Your task to perform on an android device: Open Chrome and go to the settings page Image 0: 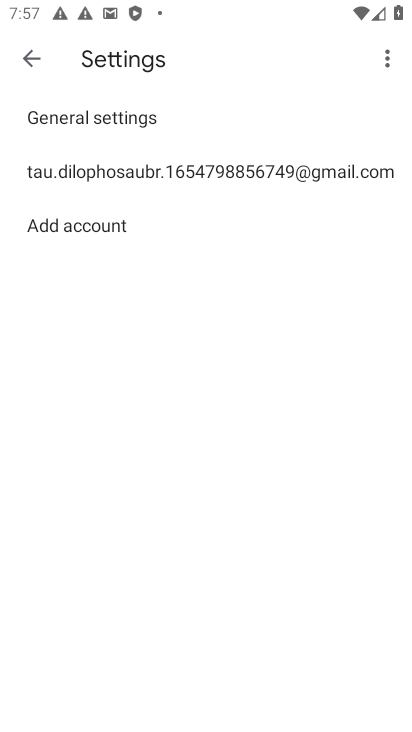
Step 0: press home button
Your task to perform on an android device: Open Chrome and go to the settings page Image 1: 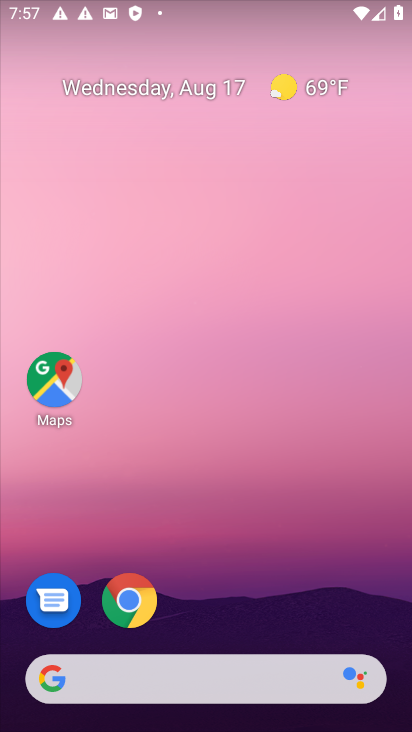
Step 1: click (145, 596)
Your task to perform on an android device: Open Chrome and go to the settings page Image 2: 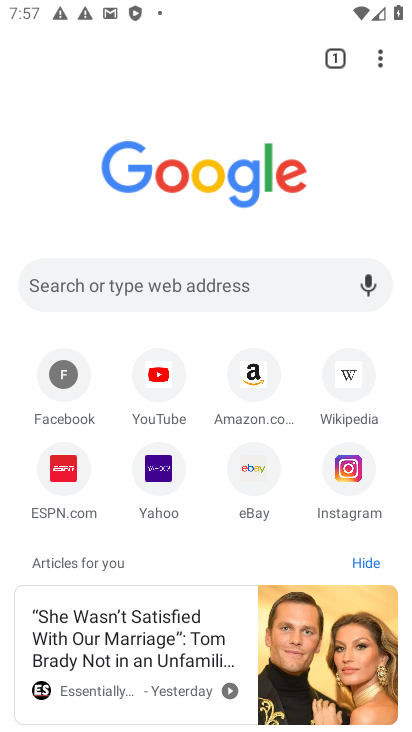
Step 2: task complete